Your task to perform on an android device: turn on notifications settings in the gmail app Image 0: 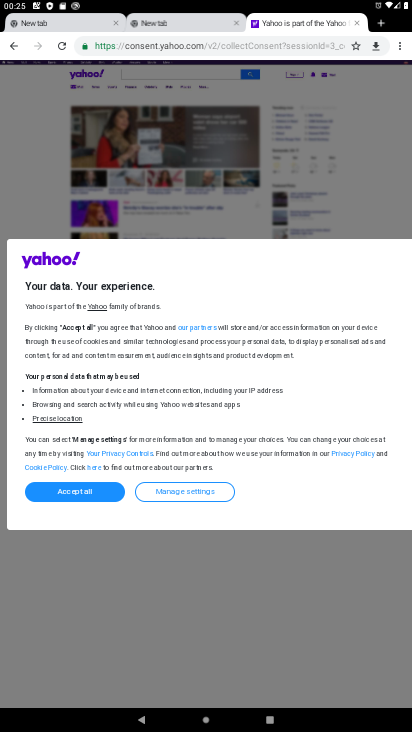
Step 0: press home button
Your task to perform on an android device: turn on notifications settings in the gmail app Image 1: 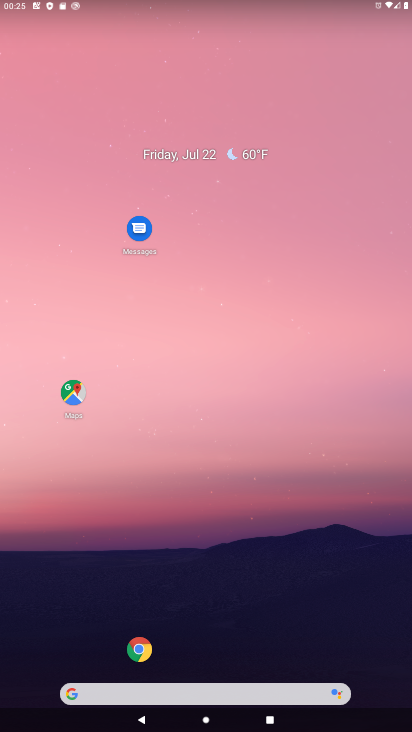
Step 1: click (183, 291)
Your task to perform on an android device: turn on notifications settings in the gmail app Image 2: 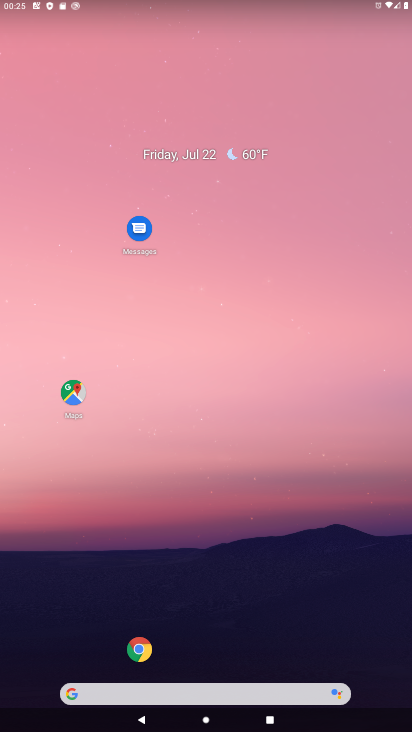
Step 2: drag from (17, 716) to (249, 158)
Your task to perform on an android device: turn on notifications settings in the gmail app Image 3: 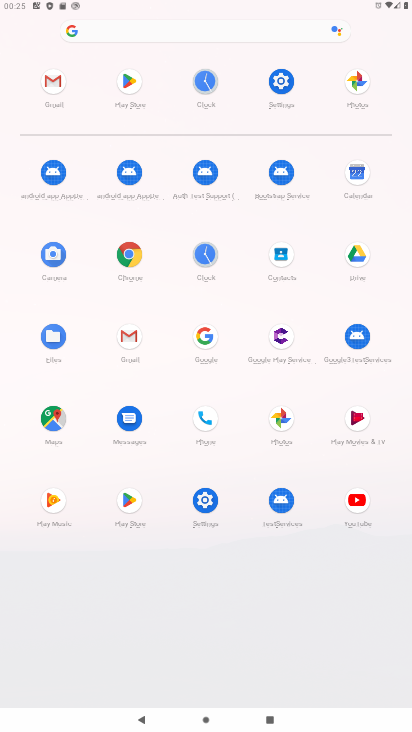
Step 3: click (203, 498)
Your task to perform on an android device: turn on notifications settings in the gmail app Image 4: 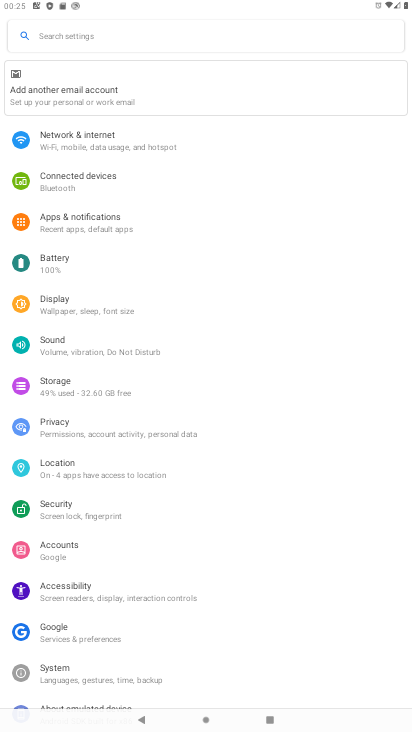
Step 4: task complete